Your task to perform on an android device: read, delete, or share a saved page in the chrome app Image 0: 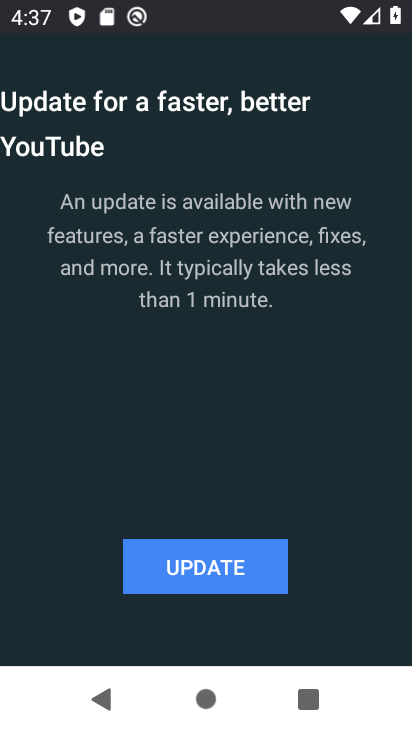
Step 0: press home button
Your task to perform on an android device: read, delete, or share a saved page in the chrome app Image 1: 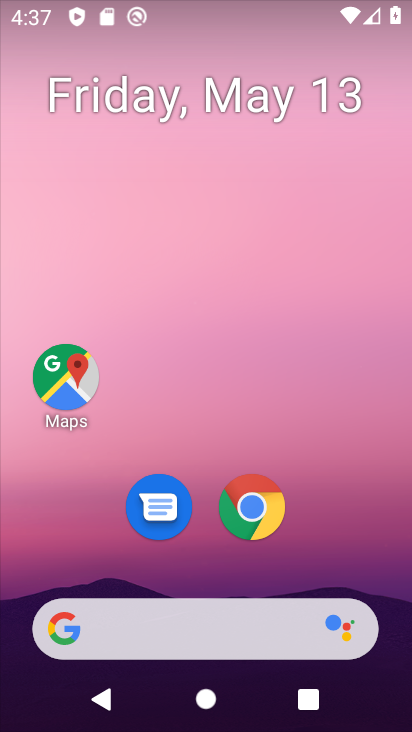
Step 1: click (256, 504)
Your task to perform on an android device: read, delete, or share a saved page in the chrome app Image 2: 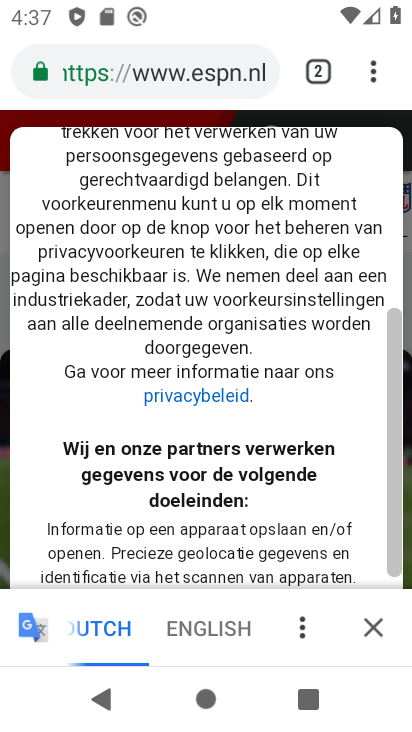
Step 2: click (374, 77)
Your task to perform on an android device: read, delete, or share a saved page in the chrome app Image 3: 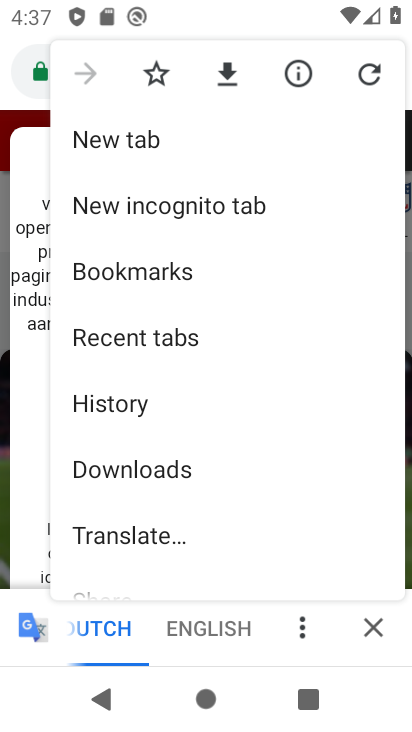
Step 3: click (154, 459)
Your task to perform on an android device: read, delete, or share a saved page in the chrome app Image 4: 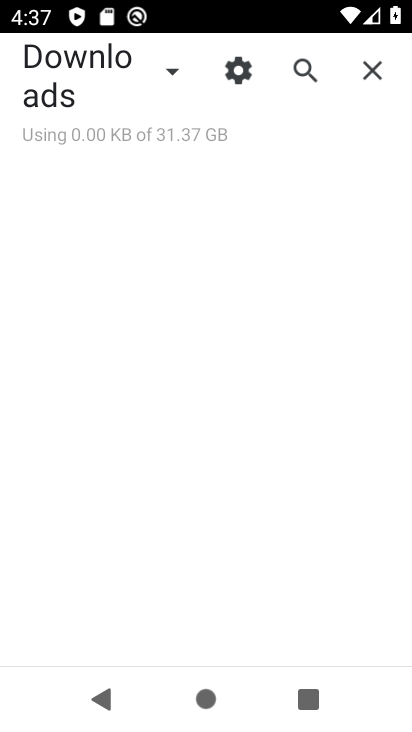
Step 4: click (138, 62)
Your task to perform on an android device: read, delete, or share a saved page in the chrome app Image 5: 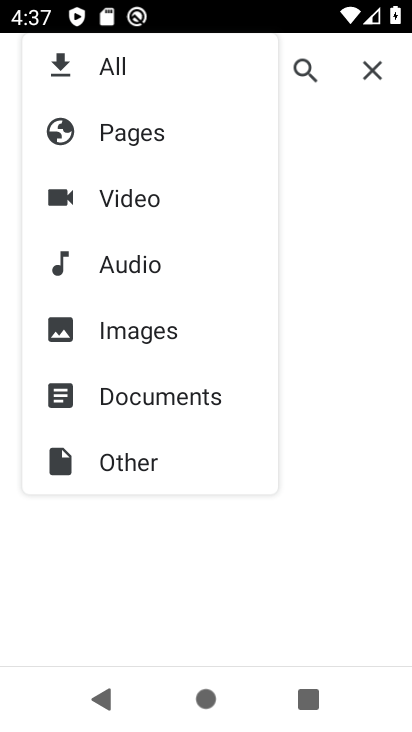
Step 5: click (141, 133)
Your task to perform on an android device: read, delete, or share a saved page in the chrome app Image 6: 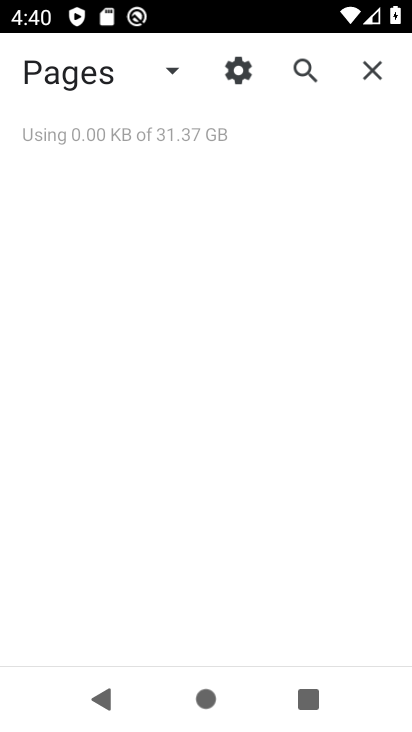
Step 6: task complete